Your task to perform on an android device: move a message to another label in the gmail app Image 0: 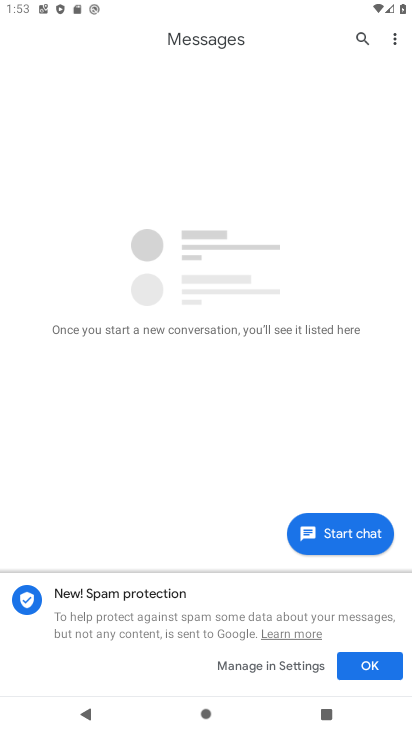
Step 0: press home button
Your task to perform on an android device: move a message to another label in the gmail app Image 1: 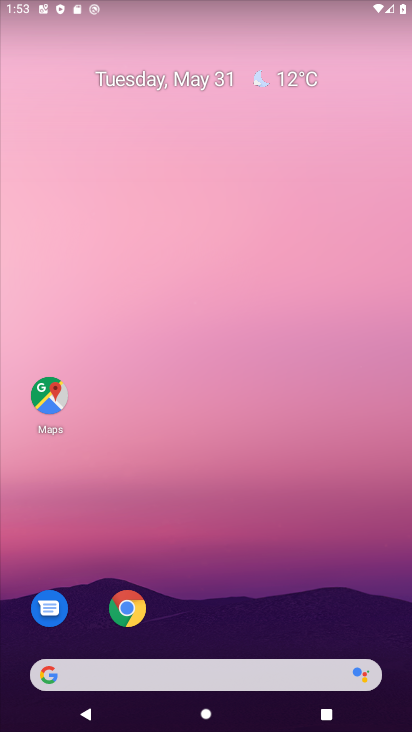
Step 1: drag from (360, 568) to (335, 250)
Your task to perform on an android device: move a message to another label in the gmail app Image 2: 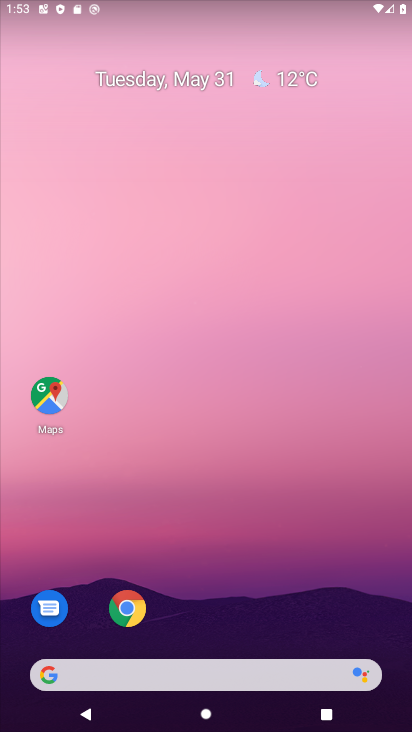
Step 2: drag from (346, 605) to (348, 170)
Your task to perform on an android device: move a message to another label in the gmail app Image 3: 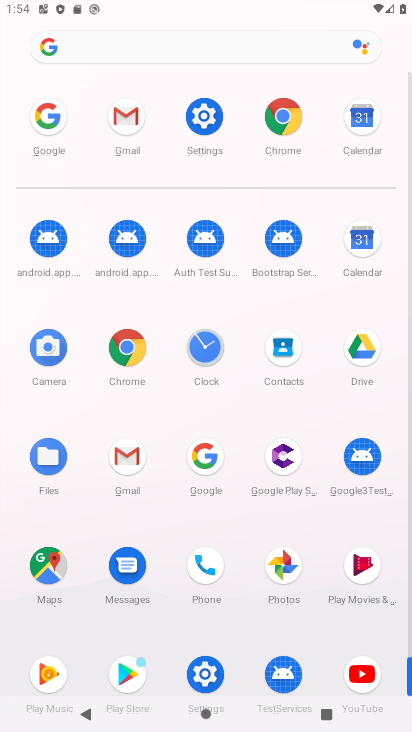
Step 3: click (130, 472)
Your task to perform on an android device: move a message to another label in the gmail app Image 4: 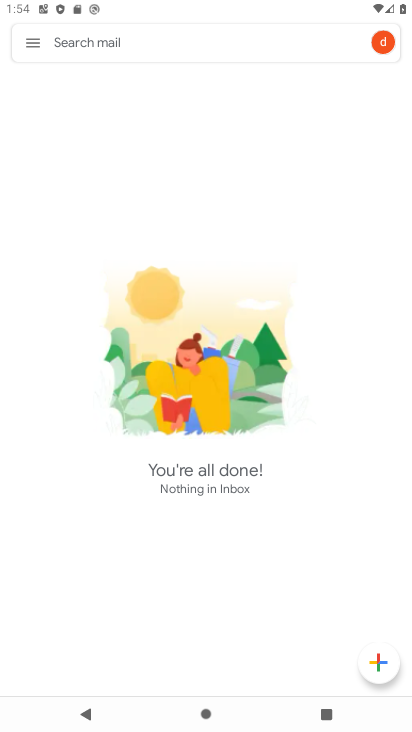
Step 4: click (42, 43)
Your task to perform on an android device: move a message to another label in the gmail app Image 5: 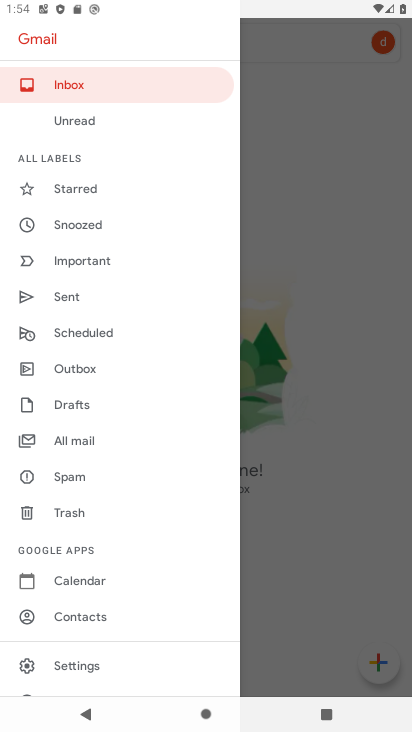
Step 5: drag from (152, 594) to (166, 335)
Your task to perform on an android device: move a message to another label in the gmail app Image 6: 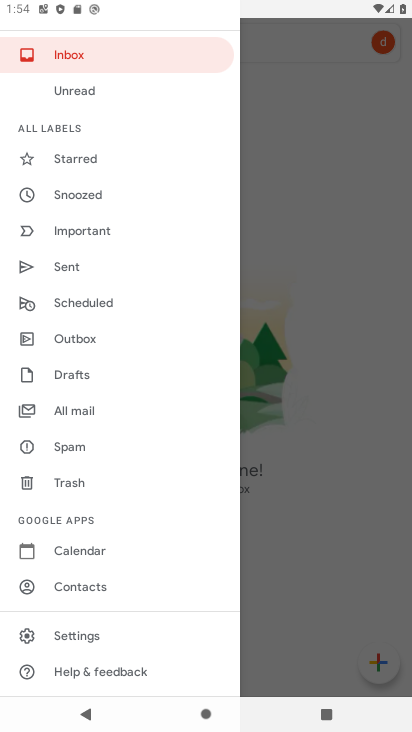
Step 6: click (115, 416)
Your task to perform on an android device: move a message to another label in the gmail app Image 7: 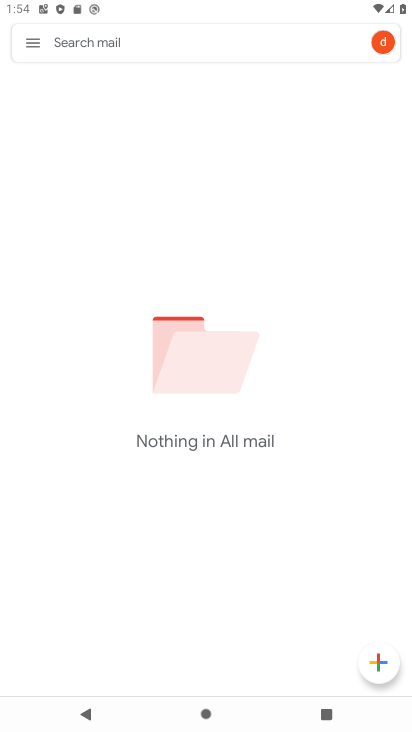
Step 7: task complete